Your task to perform on an android device: turn off translation in the chrome app Image 0: 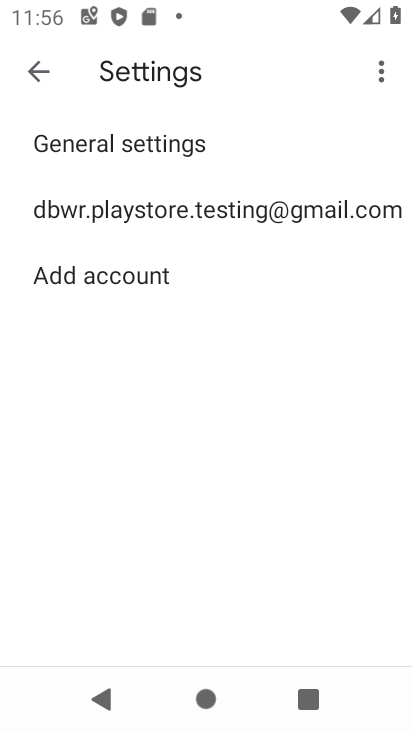
Step 0: press home button
Your task to perform on an android device: turn off translation in the chrome app Image 1: 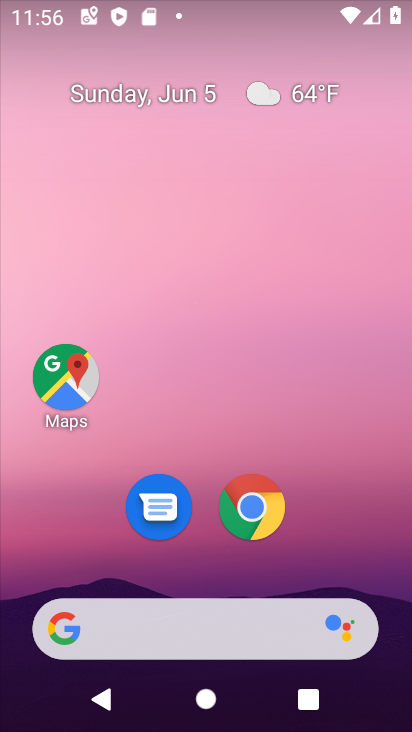
Step 1: click (253, 506)
Your task to perform on an android device: turn off translation in the chrome app Image 2: 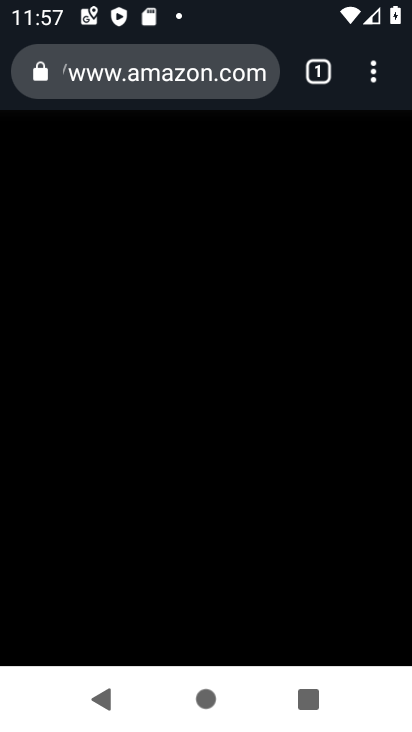
Step 2: click (369, 62)
Your task to perform on an android device: turn off translation in the chrome app Image 3: 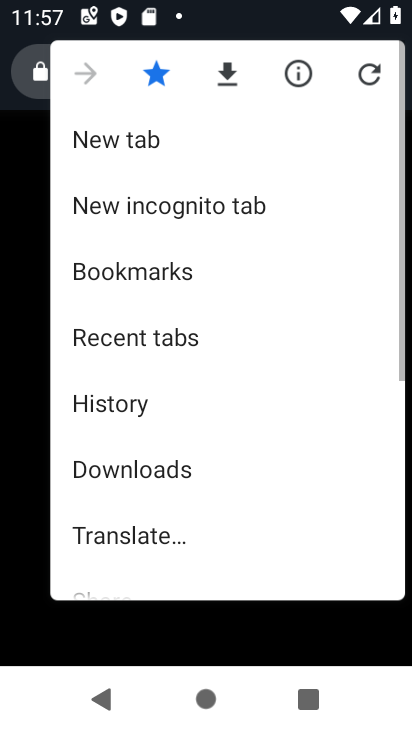
Step 3: drag from (292, 539) to (253, 194)
Your task to perform on an android device: turn off translation in the chrome app Image 4: 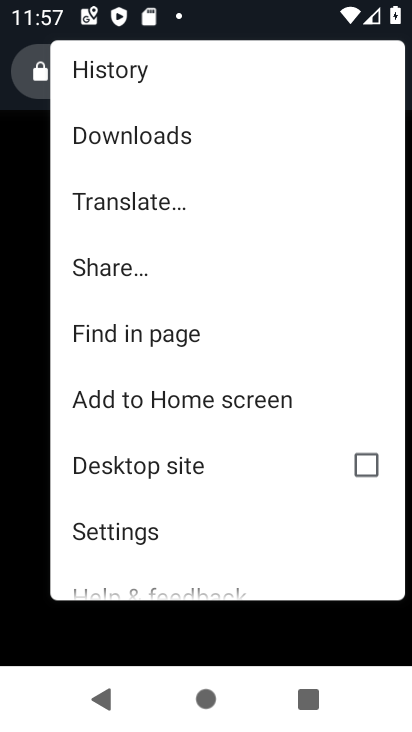
Step 4: drag from (189, 508) to (257, 236)
Your task to perform on an android device: turn off translation in the chrome app Image 5: 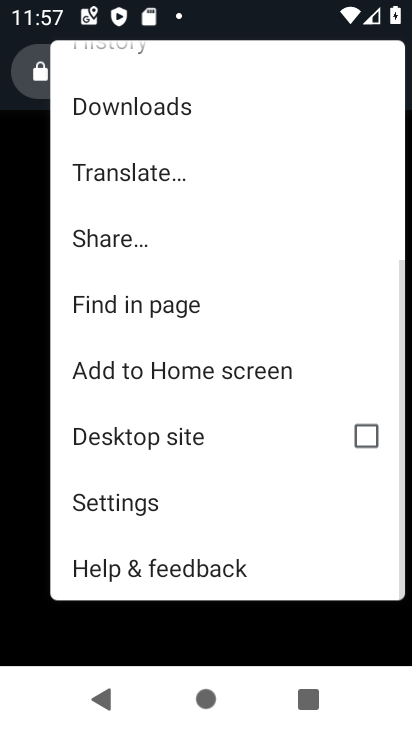
Step 5: click (119, 487)
Your task to perform on an android device: turn off translation in the chrome app Image 6: 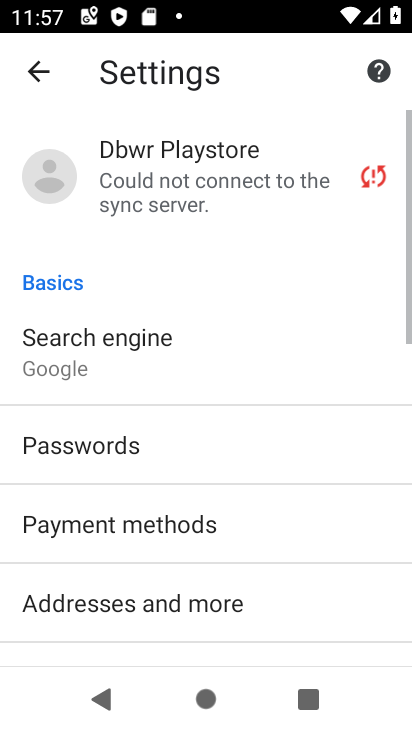
Step 6: drag from (232, 585) to (313, 104)
Your task to perform on an android device: turn off translation in the chrome app Image 7: 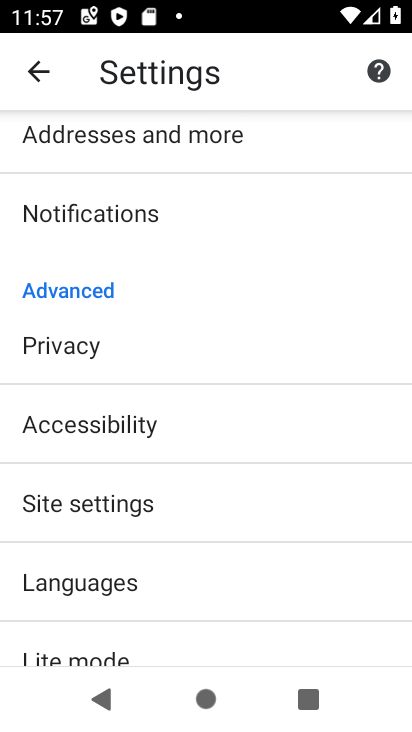
Step 7: click (83, 583)
Your task to perform on an android device: turn off translation in the chrome app Image 8: 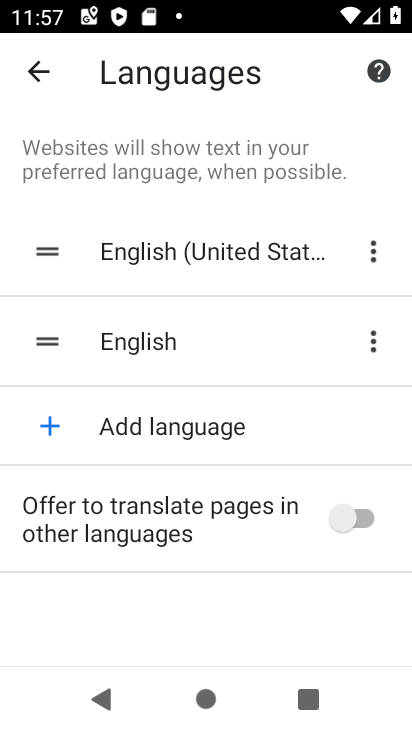
Step 8: task complete